Your task to perform on an android device: Search for pizza restaurants on Maps Image 0: 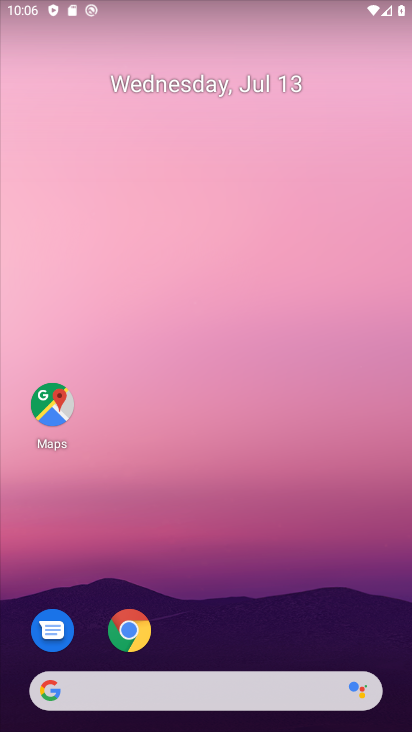
Step 0: drag from (243, 526) to (225, 139)
Your task to perform on an android device: Search for pizza restaurants on Maps Image 1: 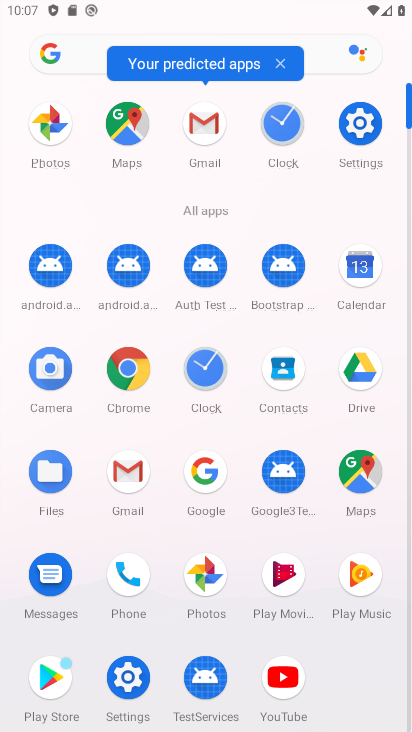
Step 1: click (132, 138)
Your task to perform on an android device: Search for pizza restaurants on Maps Image 2: 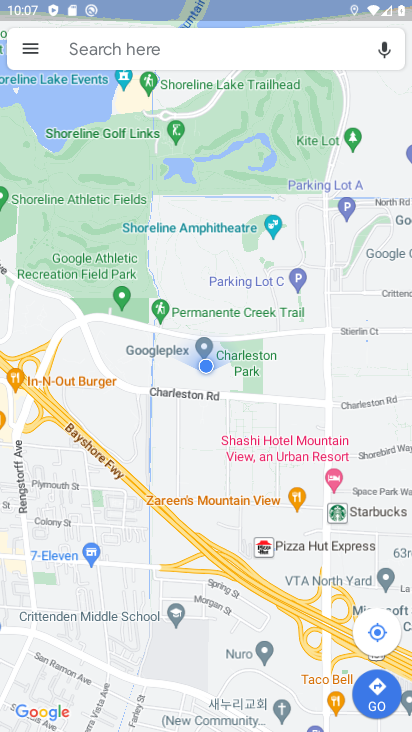
Step 2: click (94, 39)
Your task to perform on an android device: Search for pizza restaurants on Maps Image 3: 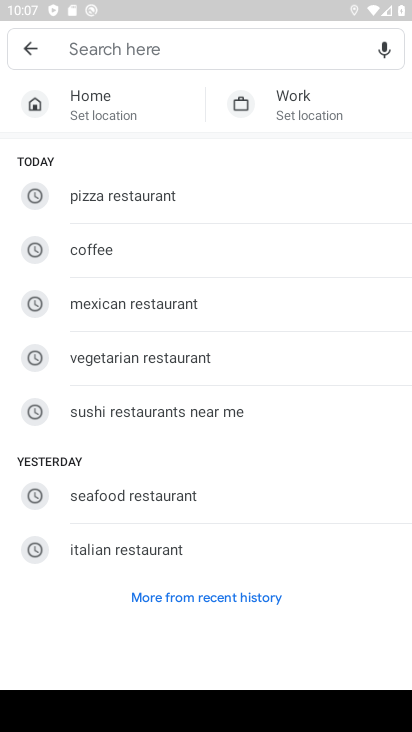
Step 3: click (135, 204)
Your task to perform on an android device: Search for pizza restaurants on Maps Image 4: 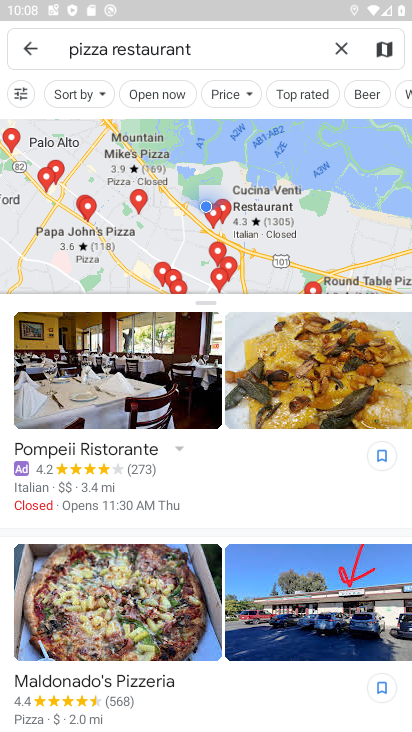
Step 4: task complete